Your task to perform on an android device: toggle notifications settings in the gmail app Image 0: 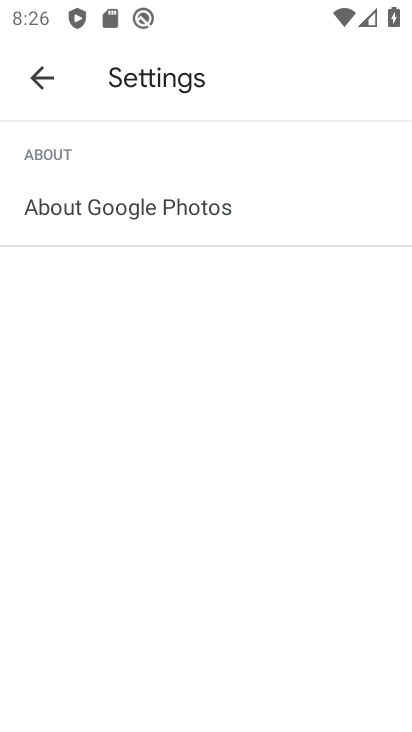
Step 0: press home button
Your task to perform on an android device: toggle notifications settings in the gmail app Image 1: 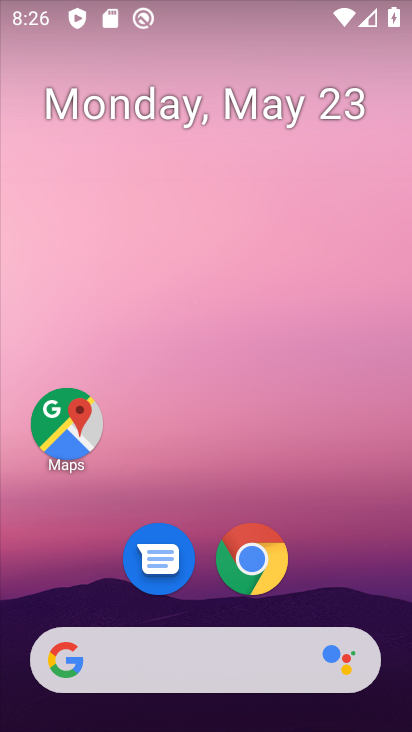
Step 1: drag from (294, 596) to (160, 0)
Your task to perform on an android device: toggle notifications settings in the gmail app Image 2: 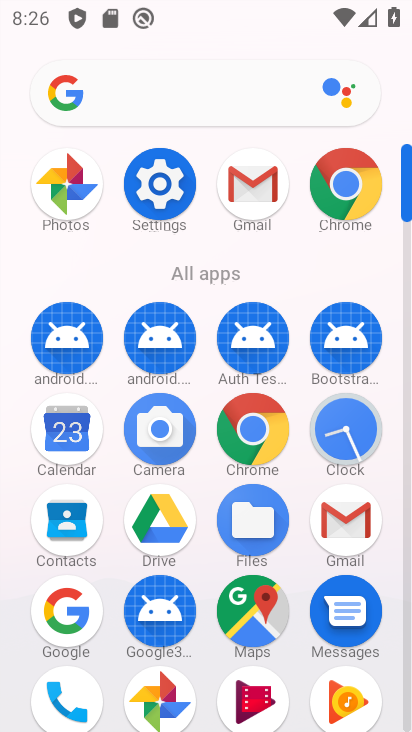
Step 2: click (359, 520)
Your task to perform on an android device: toggle notifications settings in the gmail app Image 3: 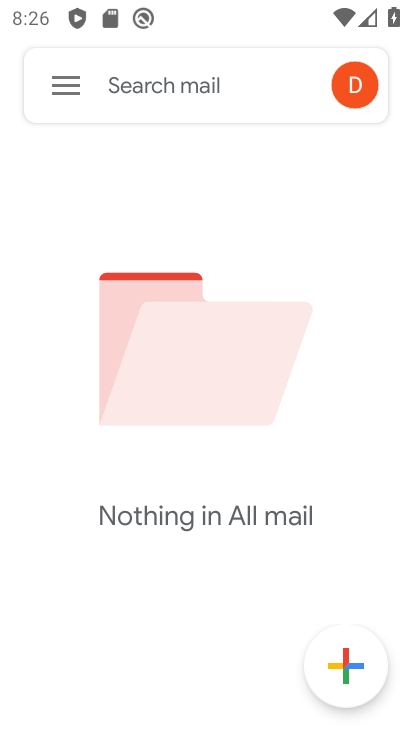
Step 3: click (68, 95)
Your task to perform on an android device: toggle notifications settings in the gmail app Image 4: 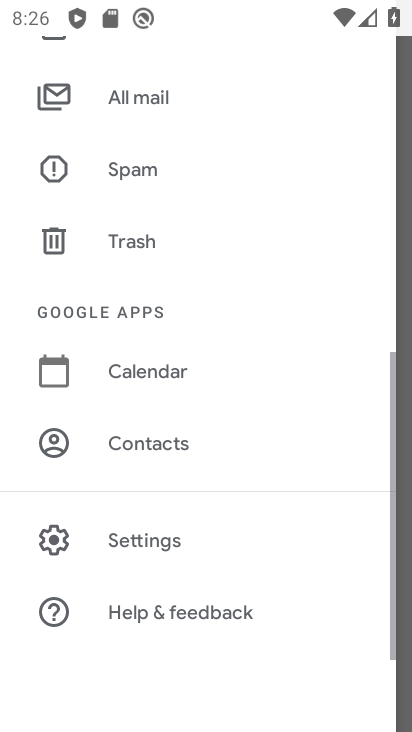
Step 4: click (247, 540)
Your task to perform on an android device: toggle notifications settings in the gmail app Image 5: 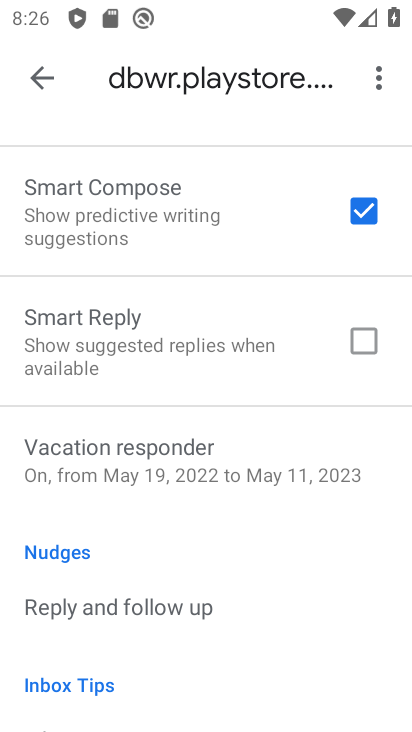
Step 5: drag from (219, 299) to (164, 658)
Your task to perform on an android device: toggle notifications settings in the gmail app Image 6: 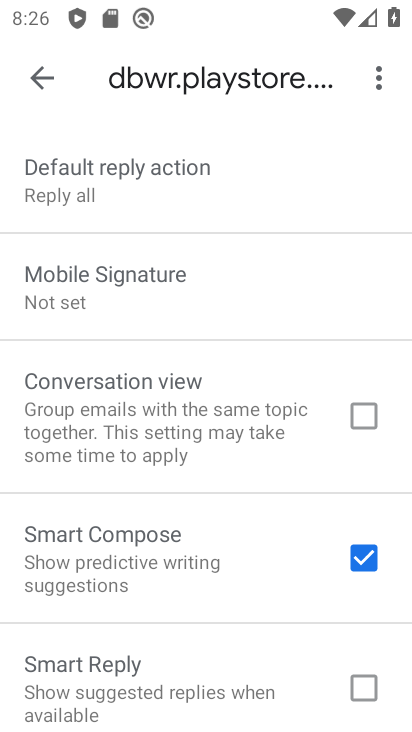
Step 6: drag from (191, 221) to (212, 582)
Your task to perform on an android device: toggle notifications settings in the gmail app Image 7: 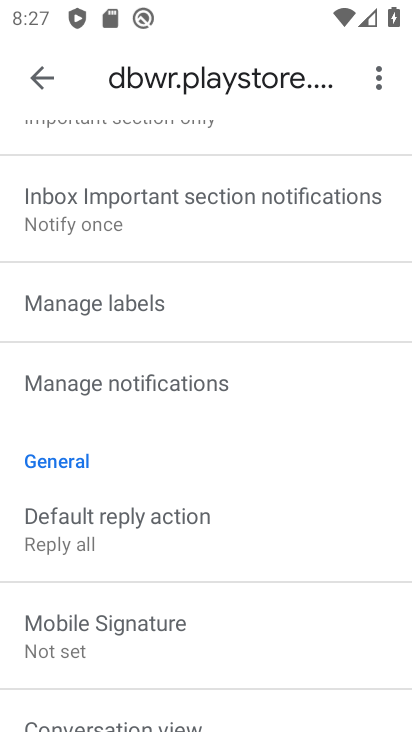
Step 7: click (165, 393)
Your task to perform on an android device: toggle notifications settings in the gmail app Image 8: 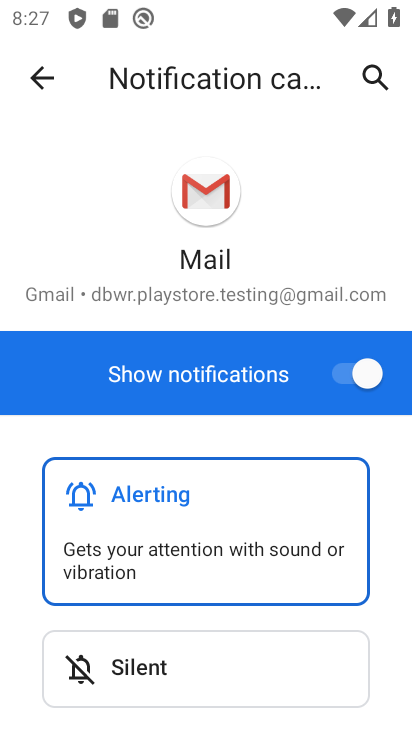
Step 8: click (353, 386)
Your task to perform on an android device: toggle notifications settings in the gmail app Image 9: 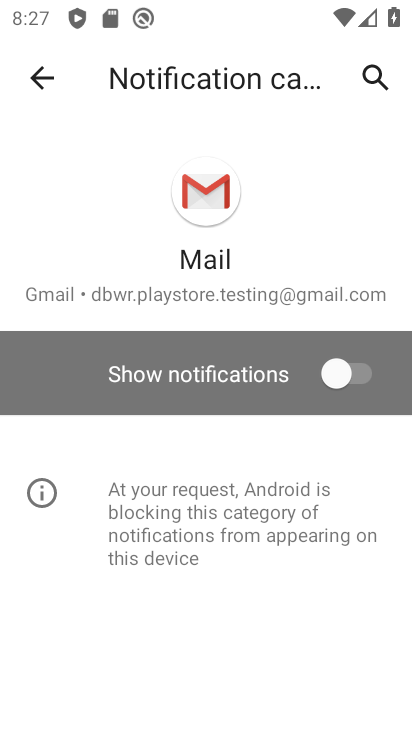
Step 9: task complete